Your task to perform on an android device: What does the iPhone 8 look like? Image 0: 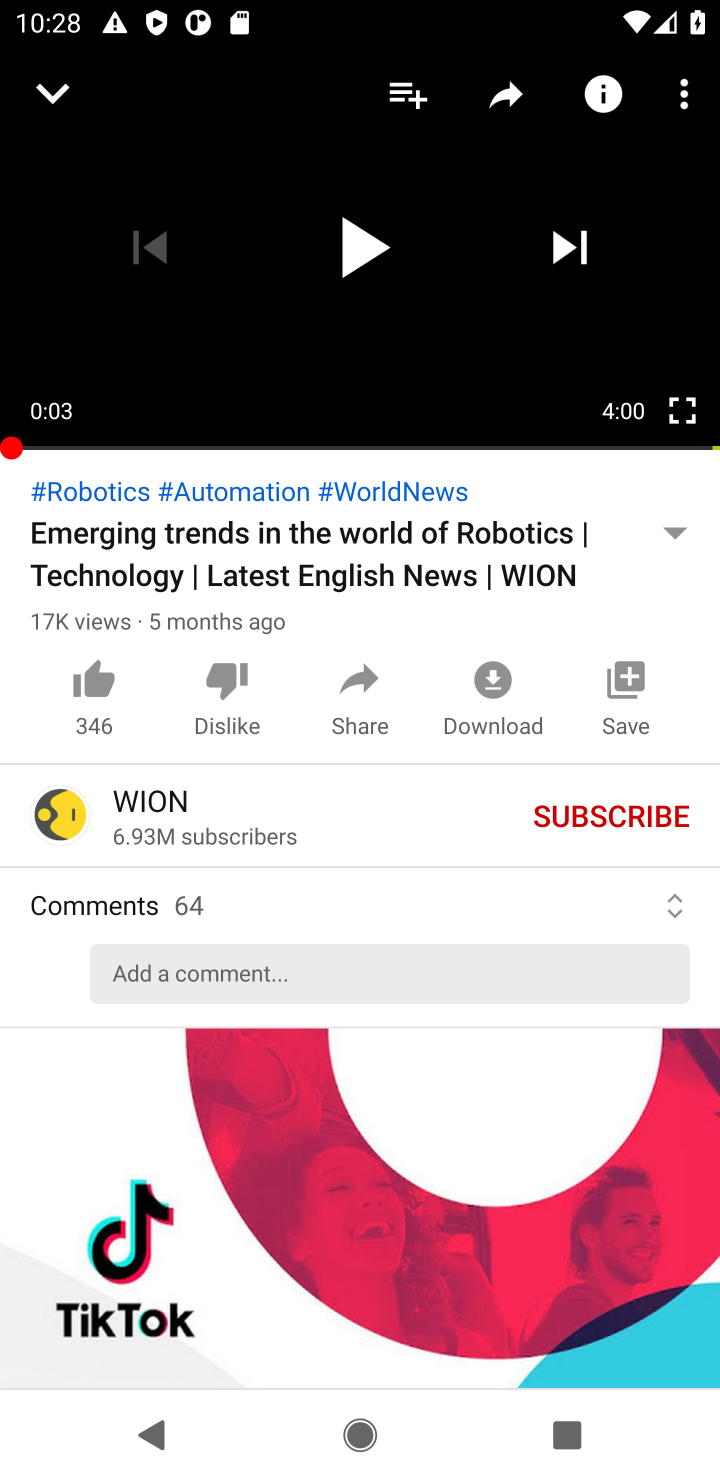
Step 0: press home button
Your task to perform on an android device: What does the iPhone 8 look like? Image 1: 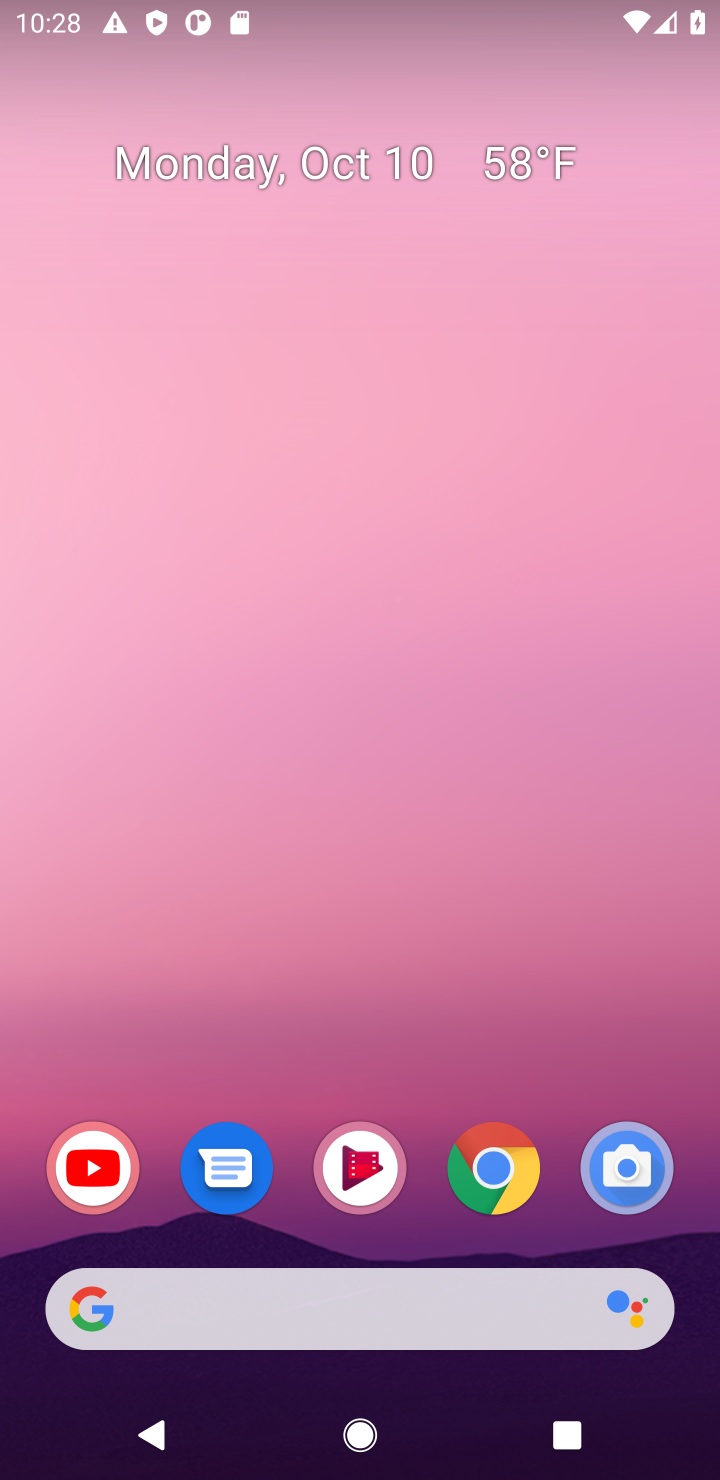
Step 1: click (421, 1288)
Your task to perform on an android device: What does the iPhone 8 look like? Image 2: 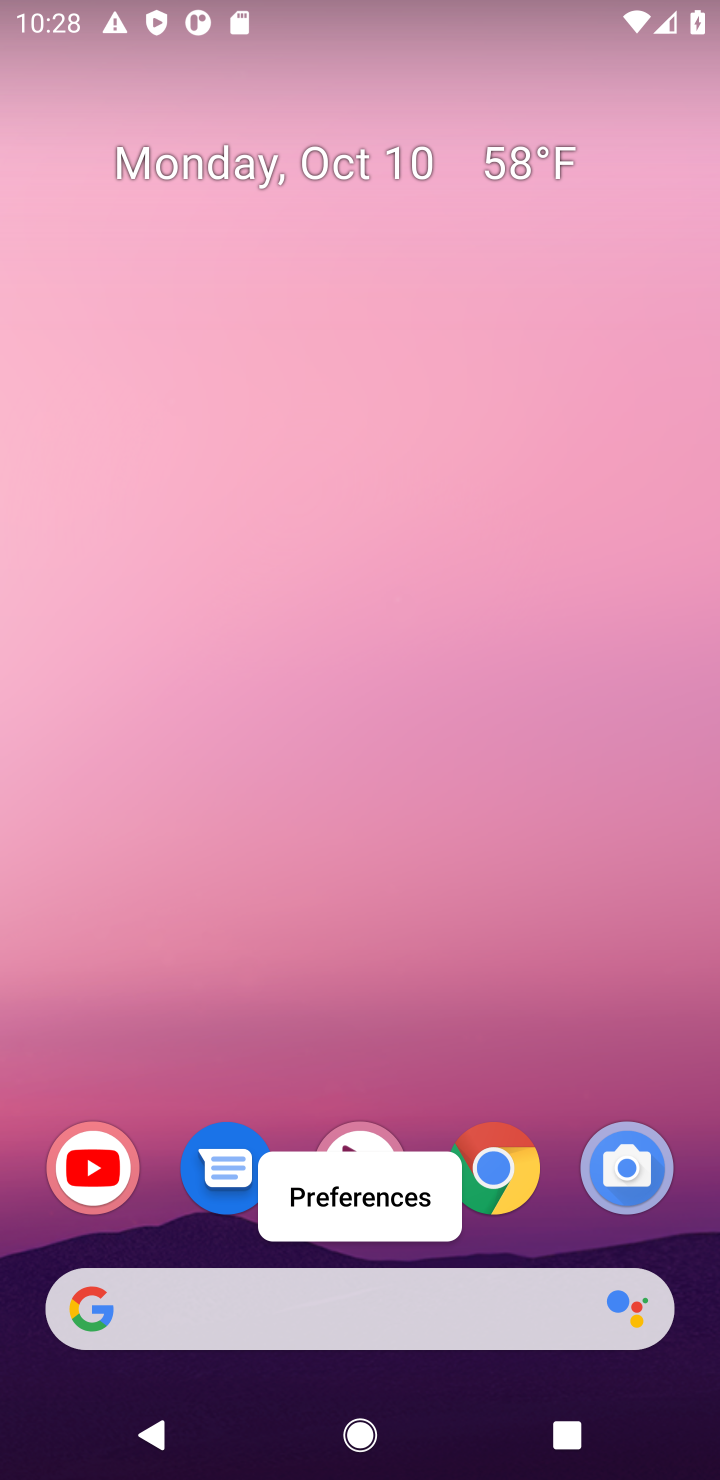
Step 2: click (403, 1295)
Your task to perform on an android device: What does the iPhone 8 look like? Image 3: 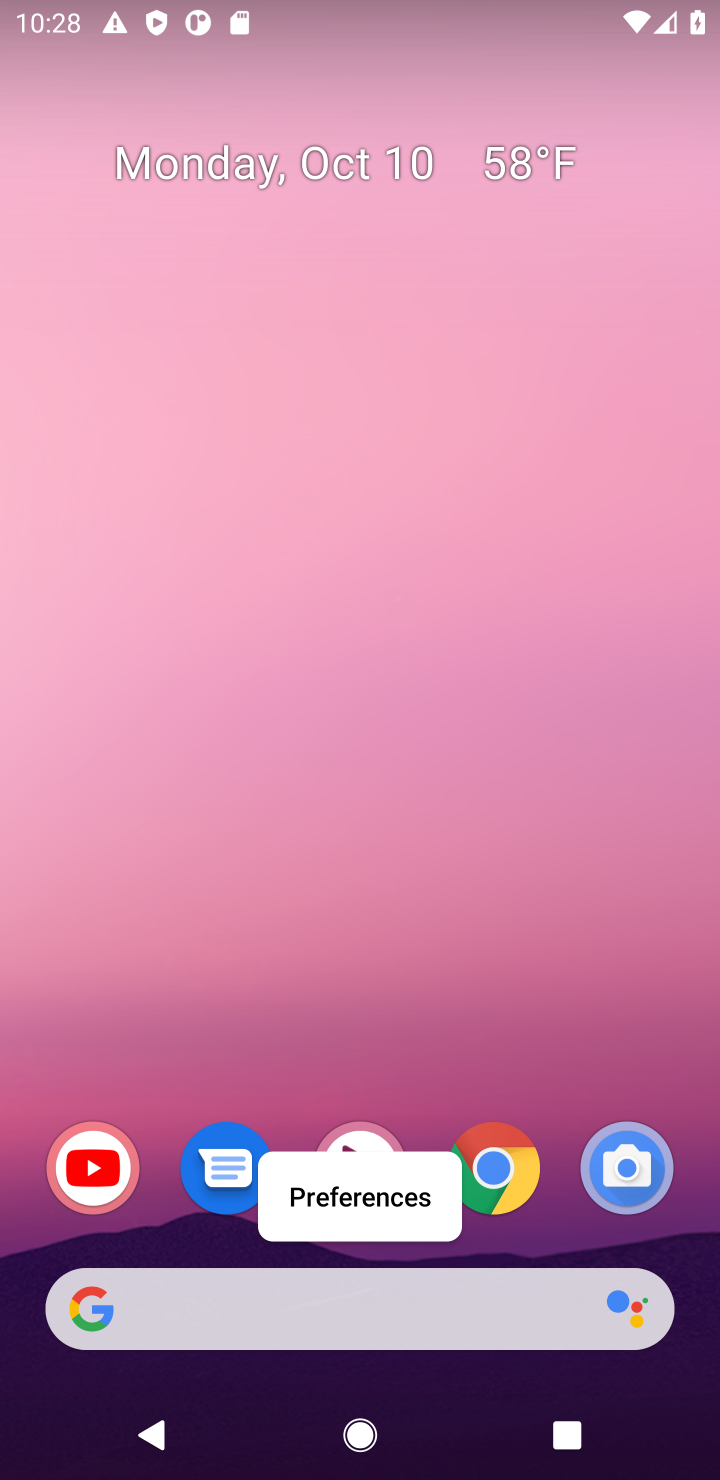
Step 3: click (398, 1308)
Your task to perform on an android device: What does the iPhone 8 look like? Image 4: 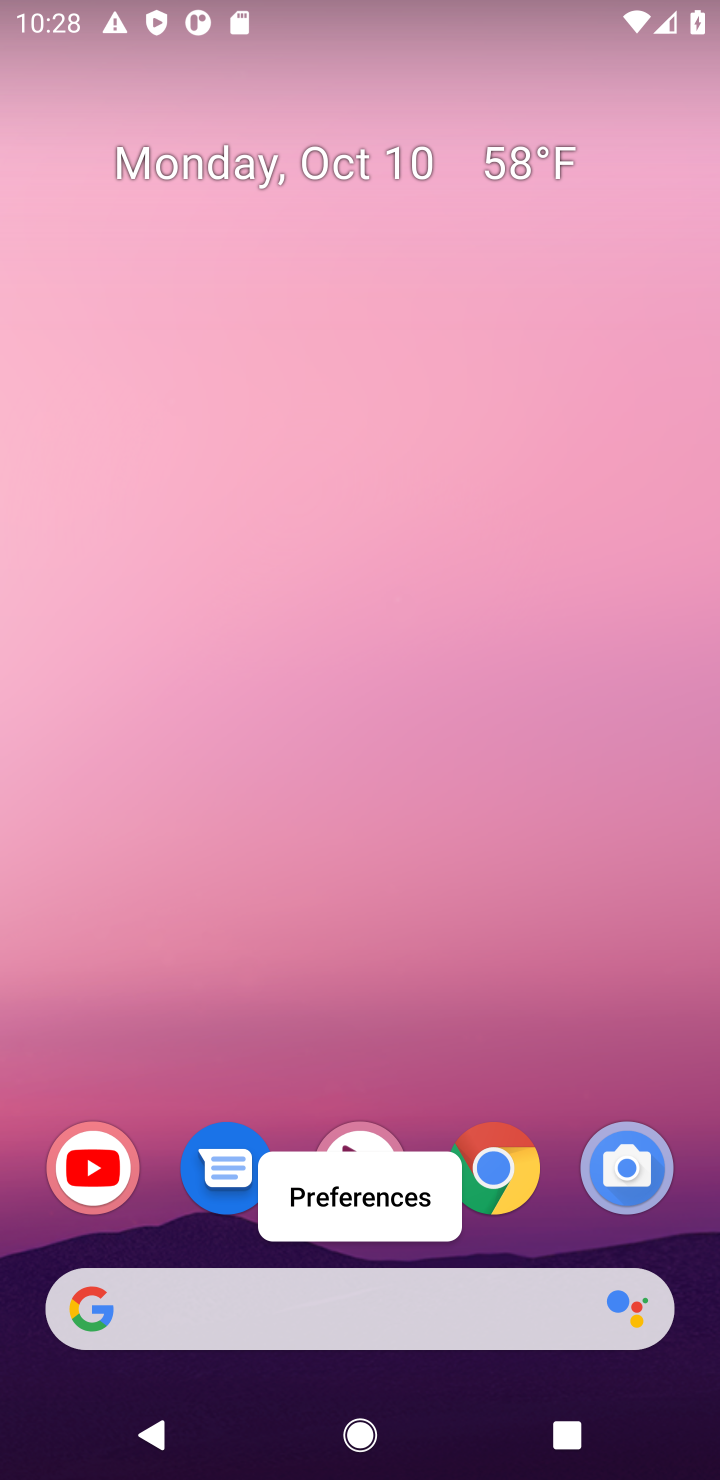
Step 4: click (326, 1306)
Your task to perform on an android device: What does the iPhone 8 look like? Image 5: 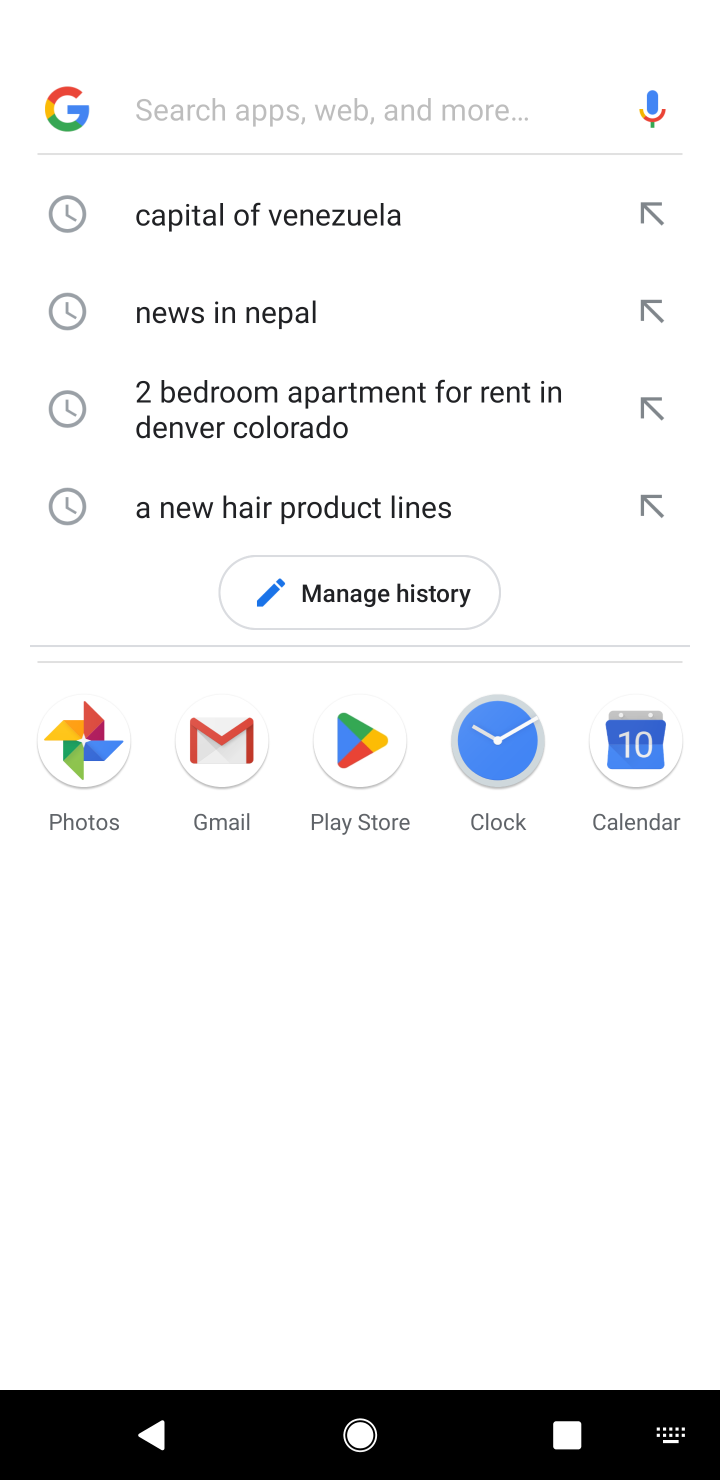
Step 5: type "iPhone 8 look like"
Your task to perform on an android device: What does the iPhone 8 look like? Image 6: 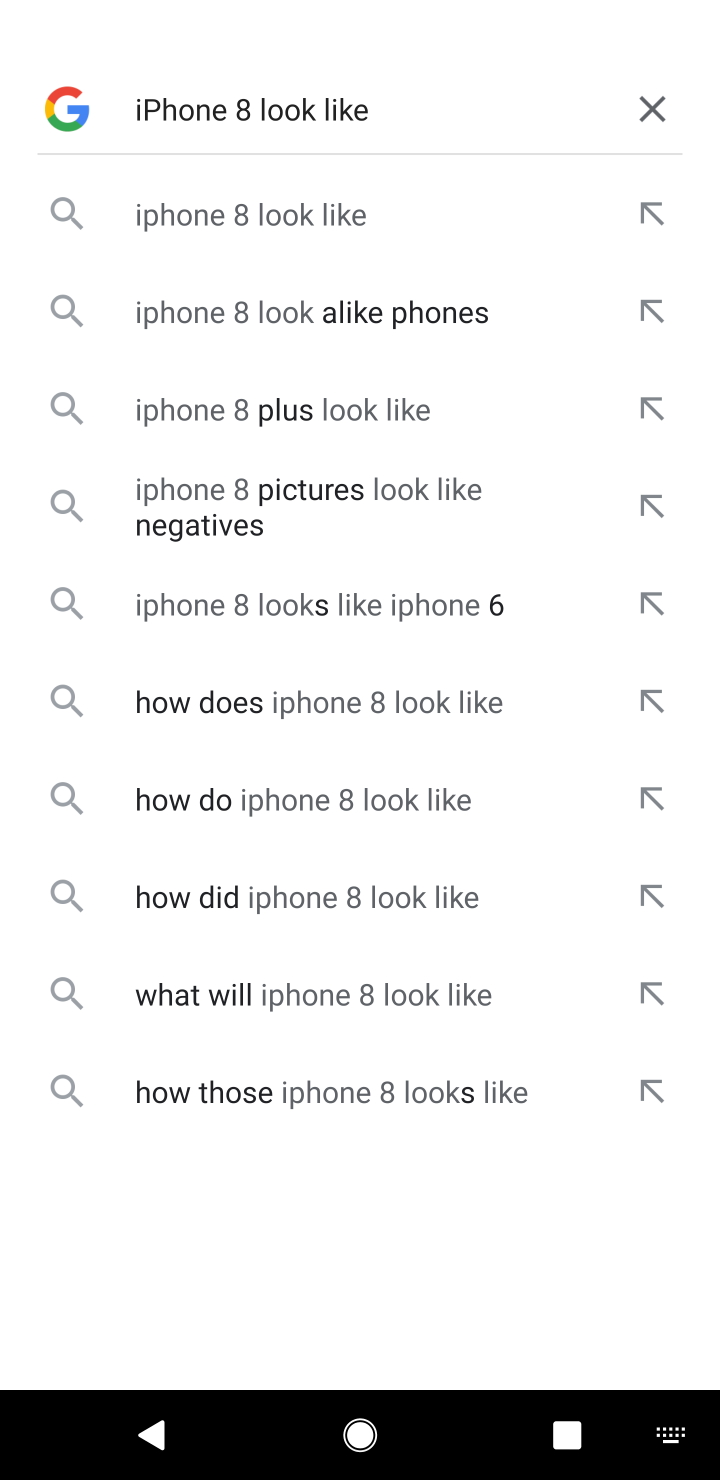
Step 6: type ""
Your task to perform on an android device: What does the iPhone 8 look like? Image 7: 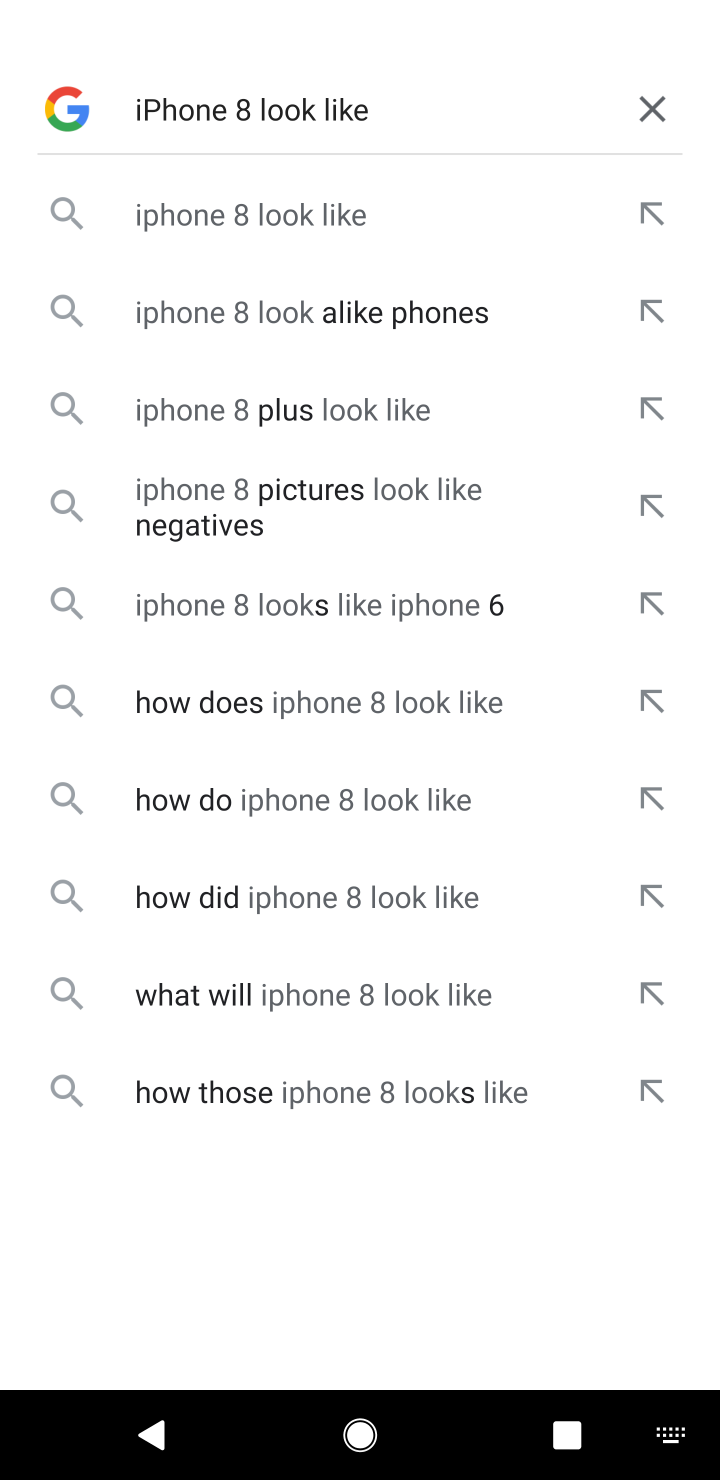
Step 7: click (360, 229)
Your task to perform on an android device: What does the iPhone 8 look like? Image 8: 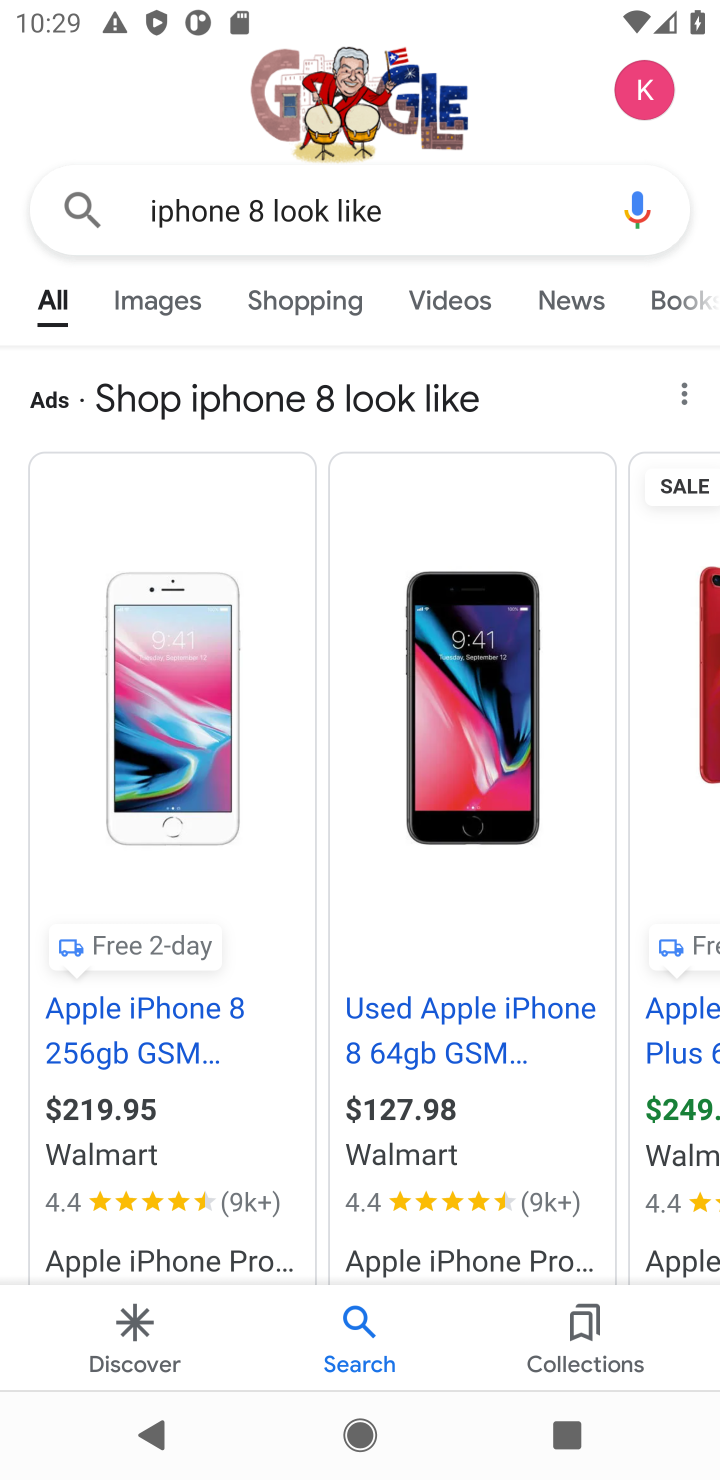
Step 8: task complete